Your task to perform on an android device: open app "Adobe Express: Graphic Design" (install if not already installed) and go to login screen Image 0: 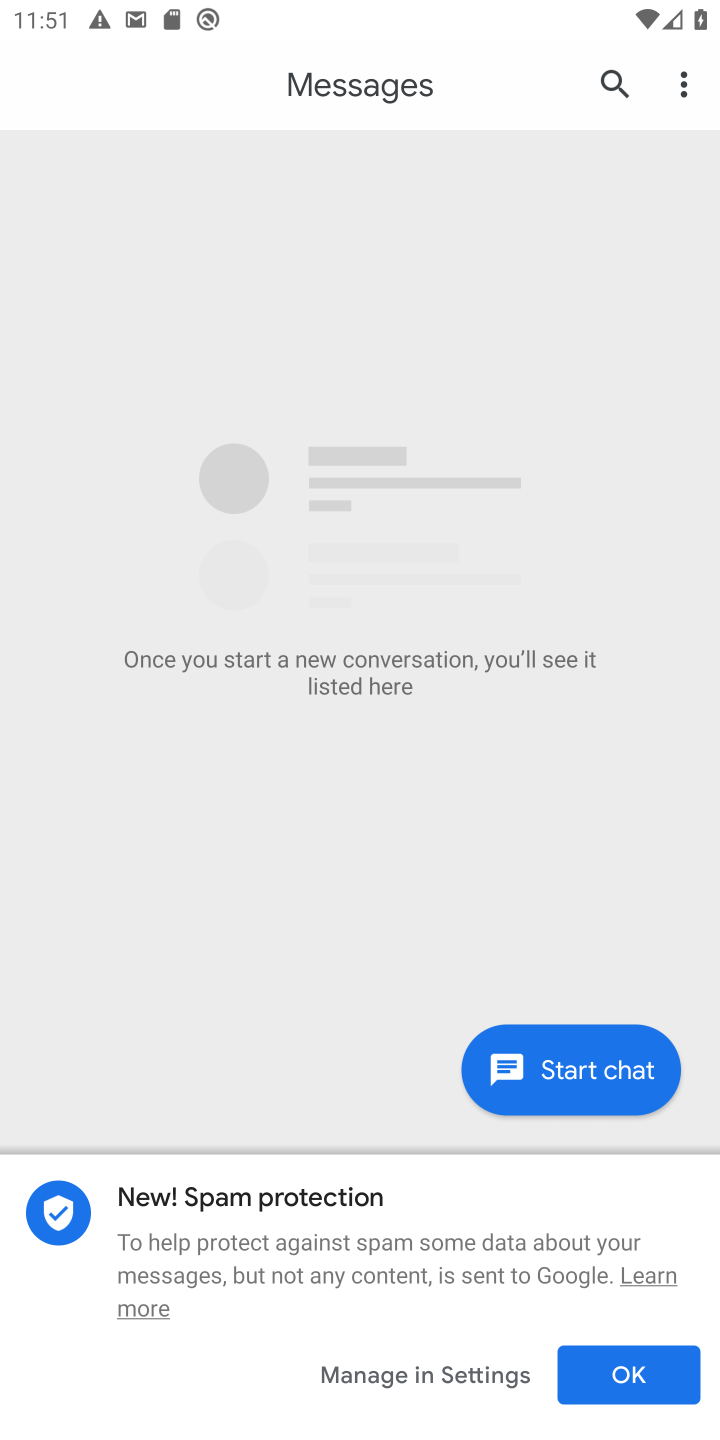
Step 0: press home button
Your task to perform on an android device: open app "Adobe Express: Graphic Design" (install if not already installed) and go to login screen Image 1: 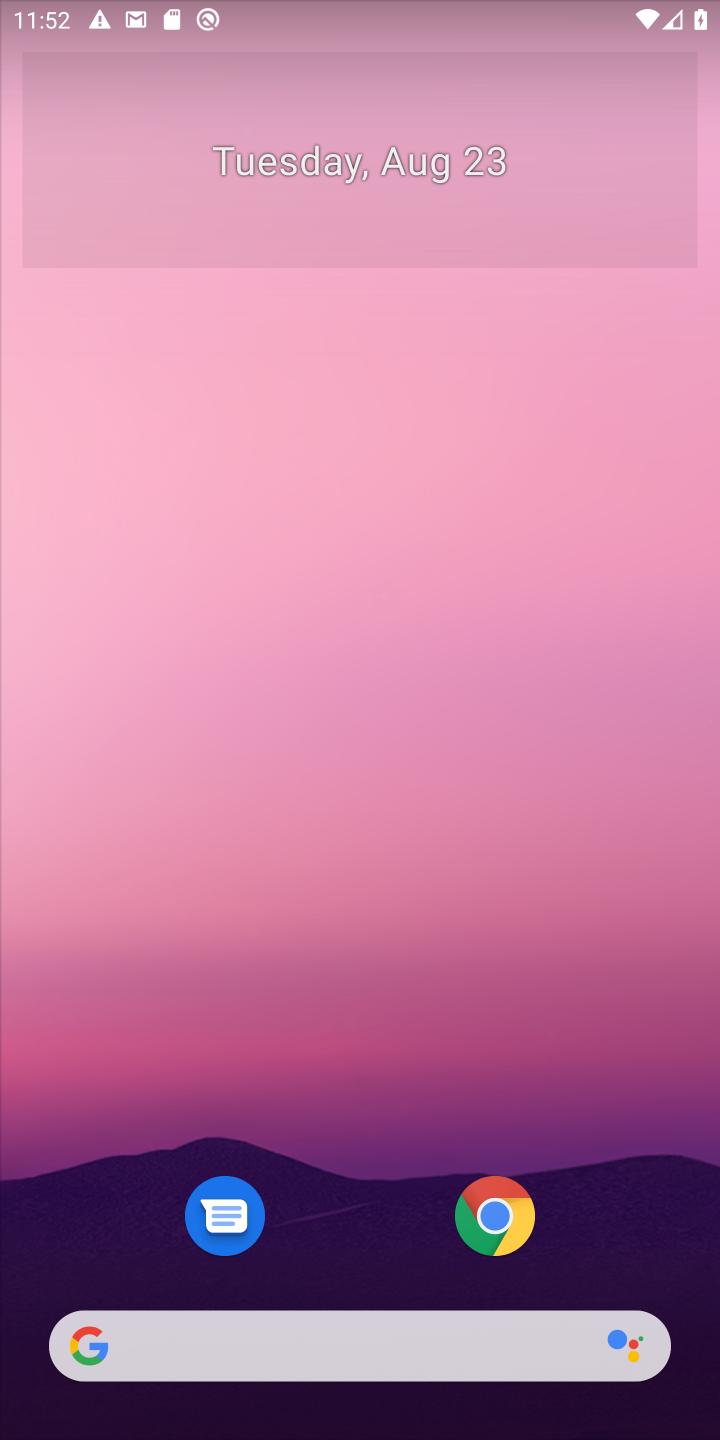
Step 1: drag from (254, 1334) to (397, 165)
Your task to perform on an android device: open app "Adobe Express: Graphic Design" (install if not already installed) and go to login screen Image 2: 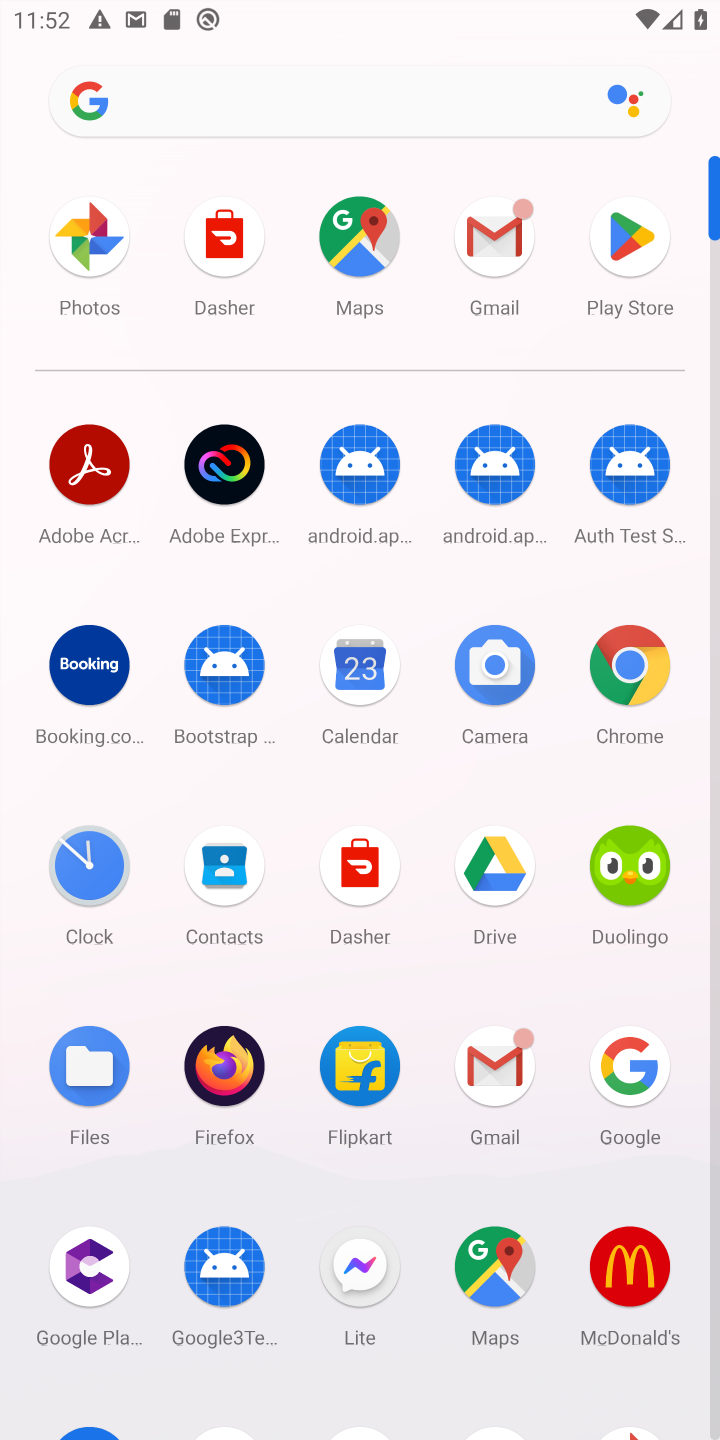
Step 2: click (628, 244)
Your task to perform on an android device: open app "Adobe Express: Graphic Design" (install if not already installed) and go to login screen Image 3: 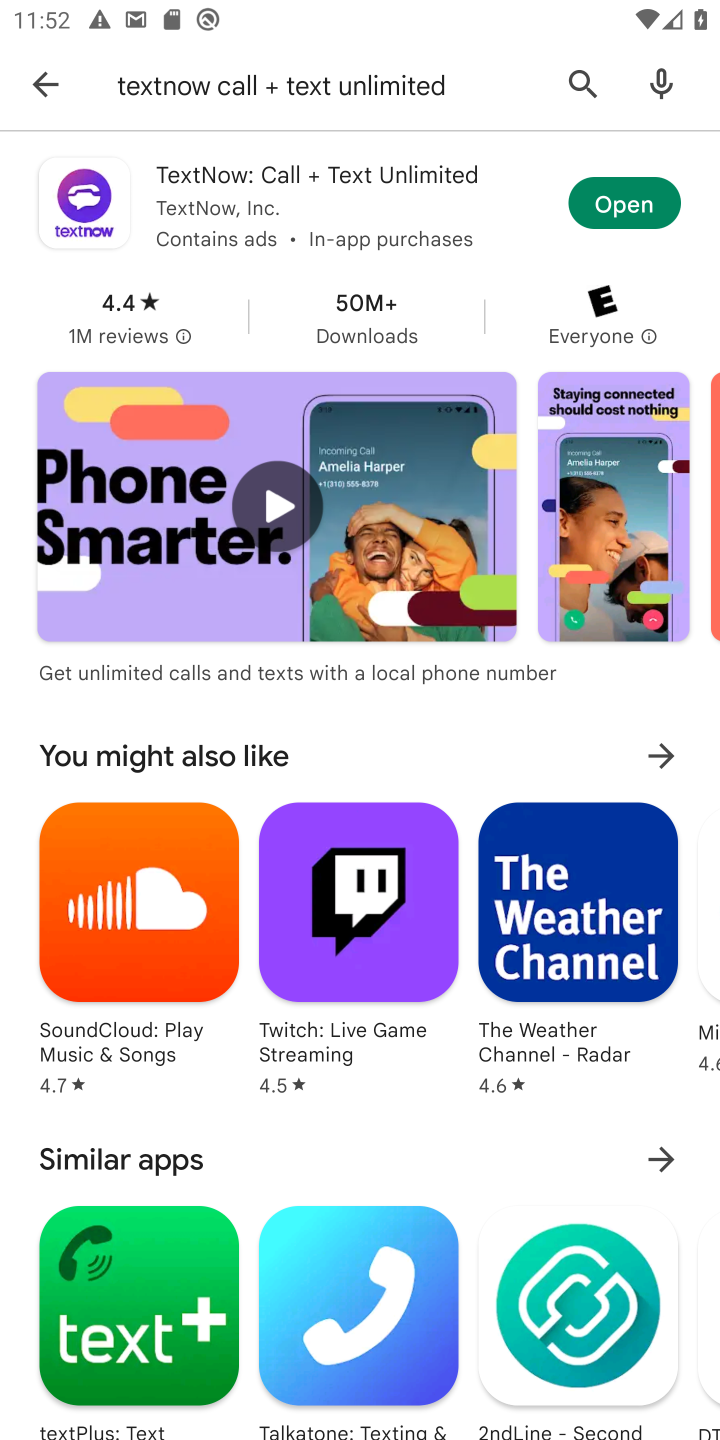
Step 3: press back button
Your task to perform on an android device: open app "Adobe Express: Graphic Design" (install if not already installed) and go to login screen Image 4: 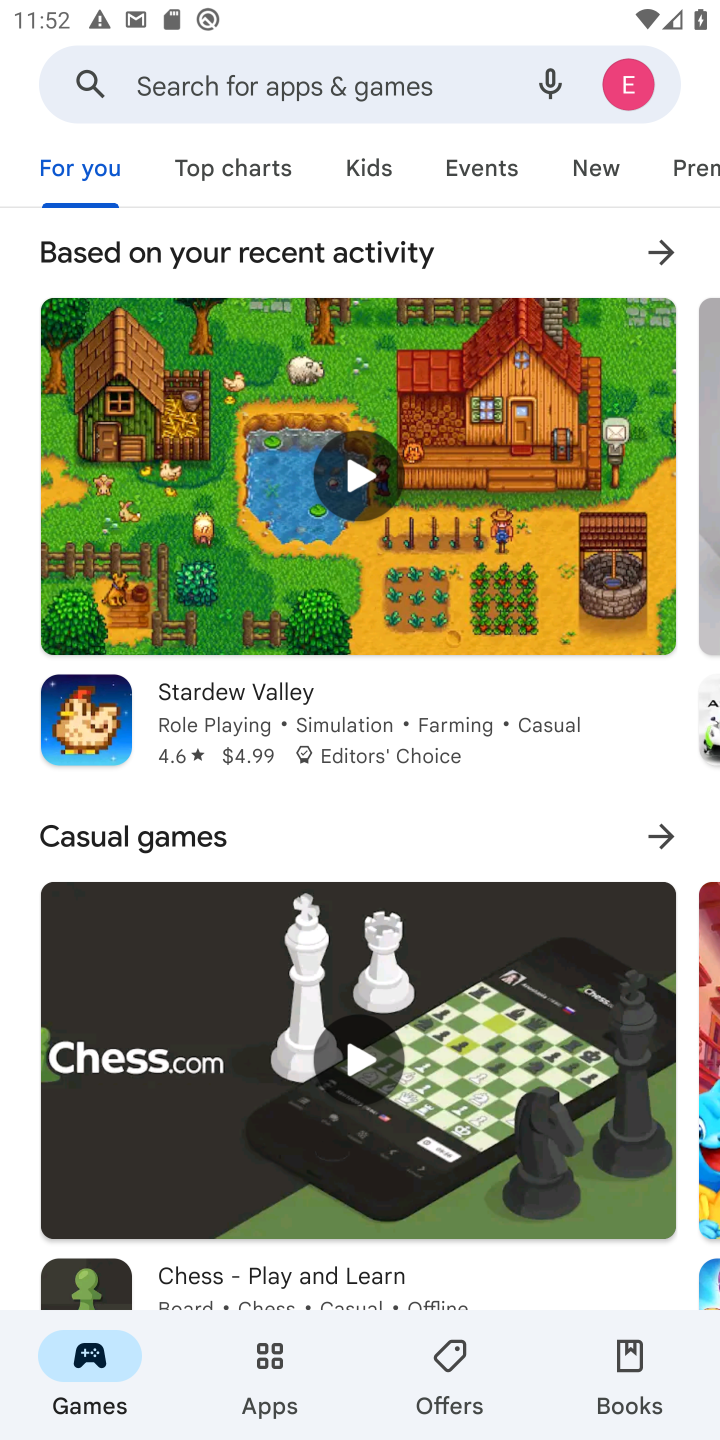
Step 4: click (388, 101)
Your task to perform on an android device: open app "Adobe Express: Graphic Design" (install if not already installed) and go to login screen Image 5: 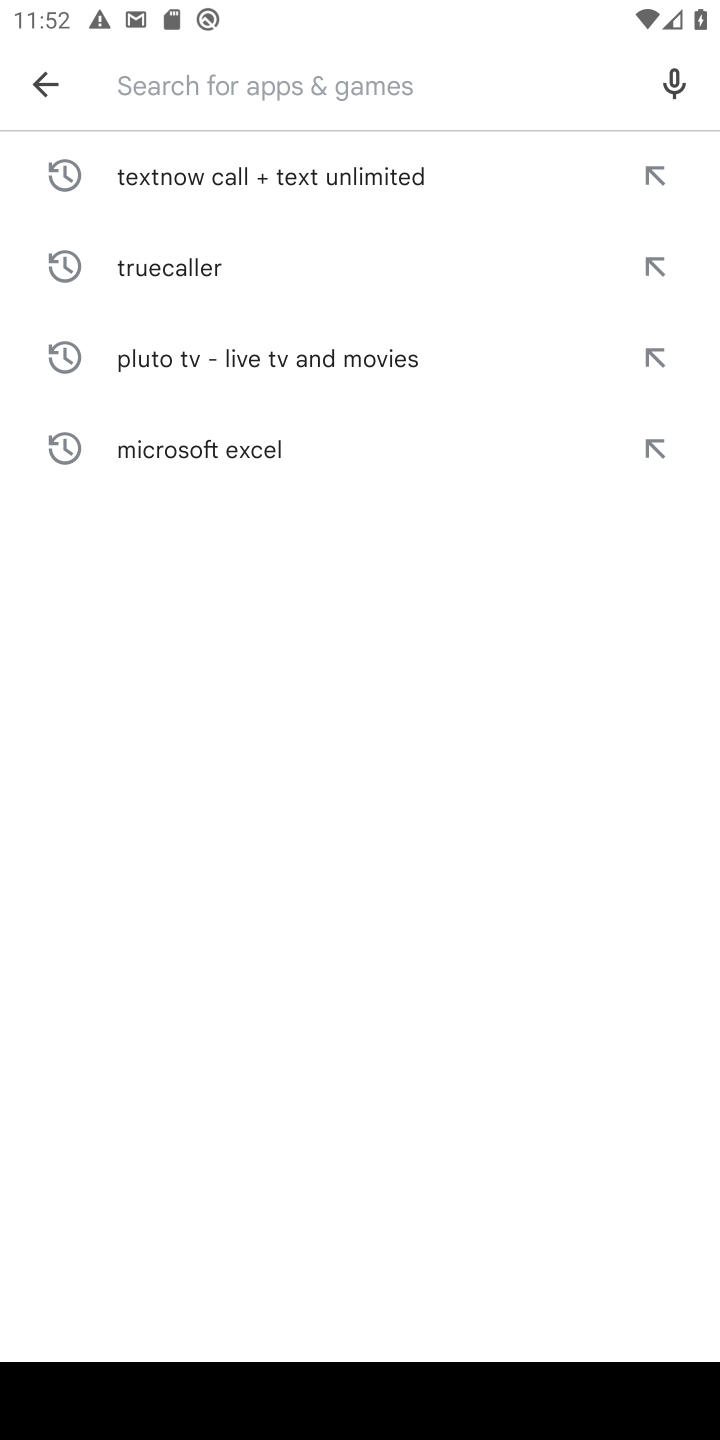
Step 5: type "Adobe Express: Graphic Design"
Your task to perform on an android device: open app "Adobe Express: Graphic Design" (install if not already installed) and go to login screen Image 6: 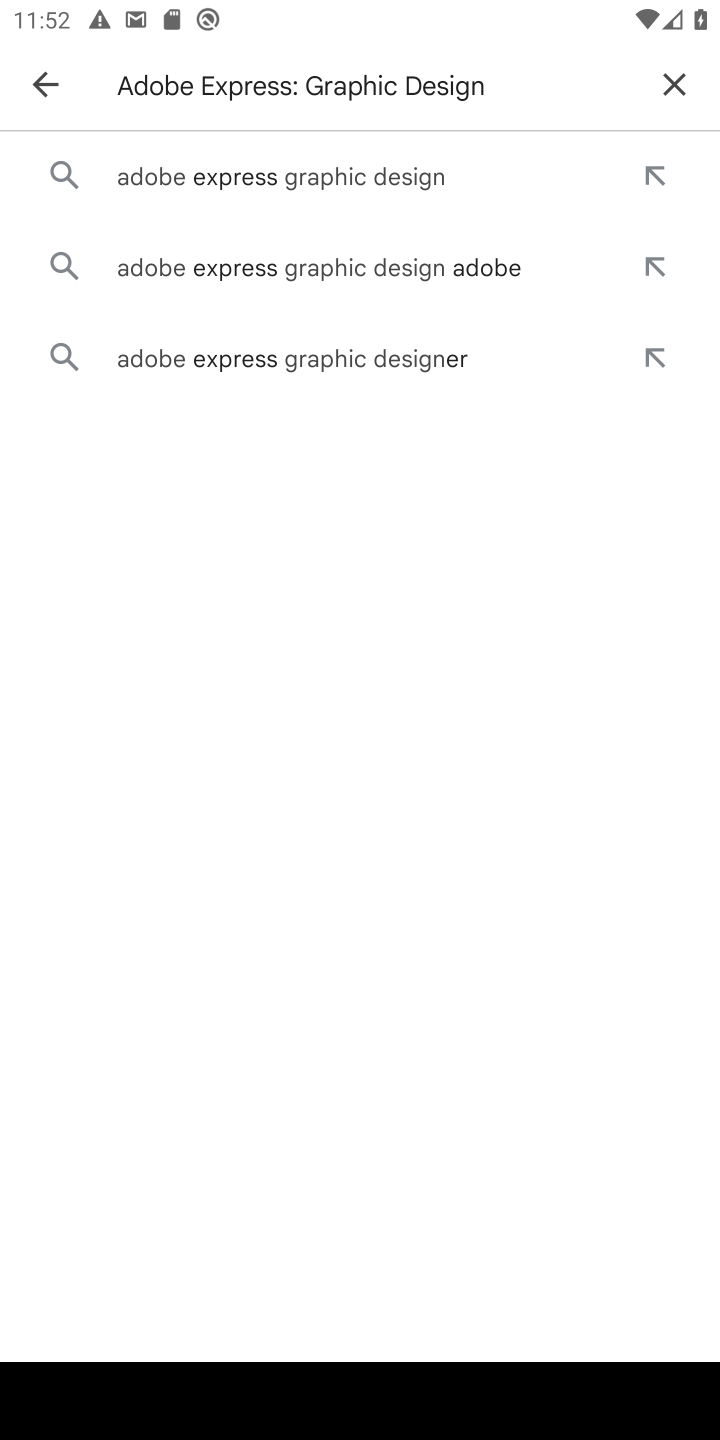
Step 6: click (270, 180)
Your task to perform on an android device: open app "Adobe Express: Graphic Design" (install if not already installed) and go to login screen Image 7: 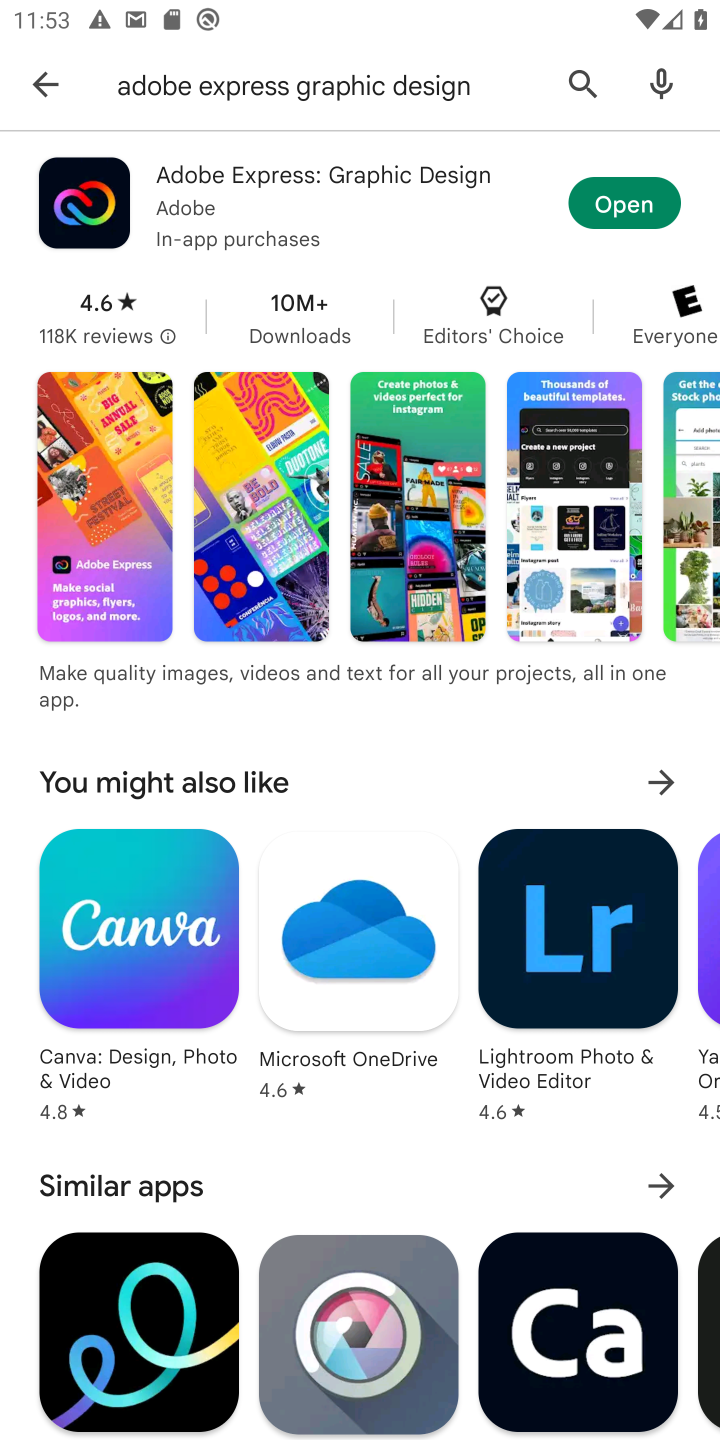
Step 7: click (608, 200)
Your task to perform on an android device: open app "Adobe Express: Graphic Design" (install if not already installed) and go to login screen Image 8: 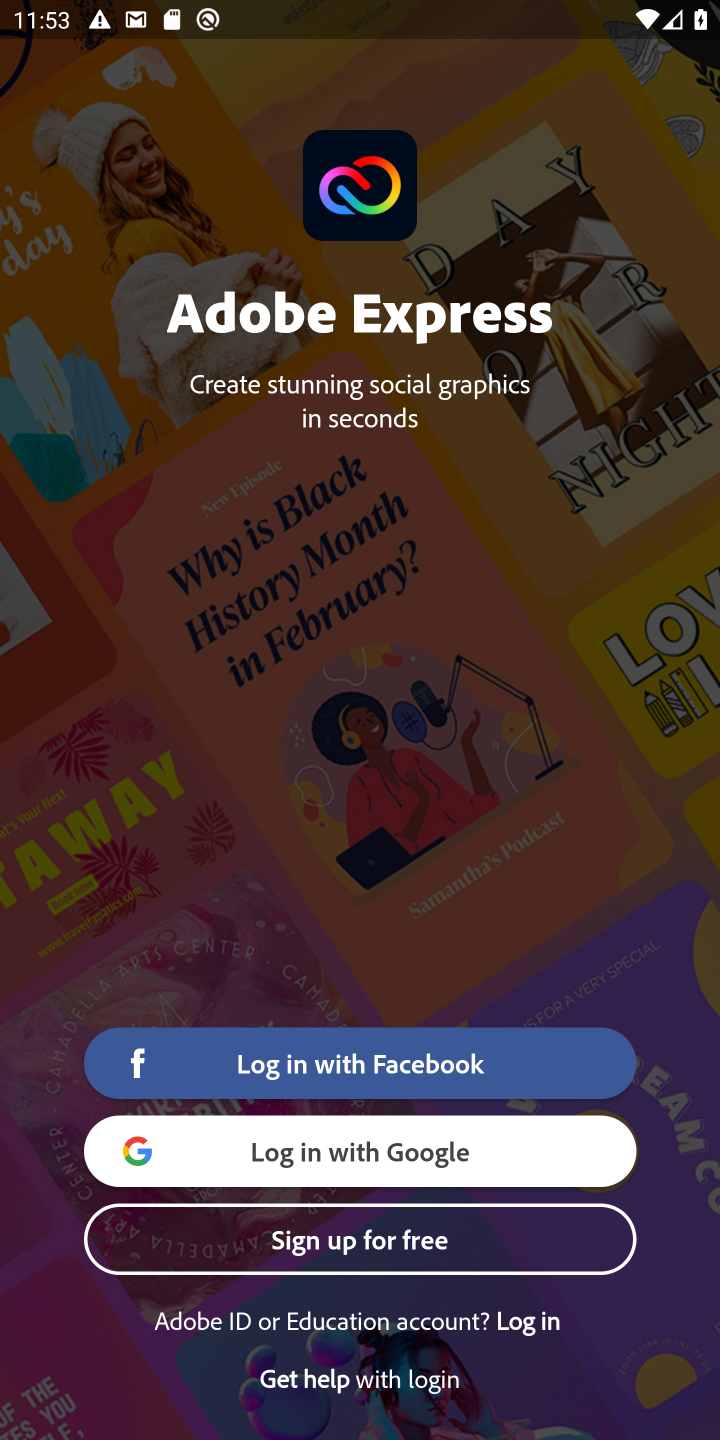
Step 8: click (528, 1330)
Your task to perform on an android device: open app "Adobe Express: Graphic Design" (install if not already installed) and go to login screen Image 9: 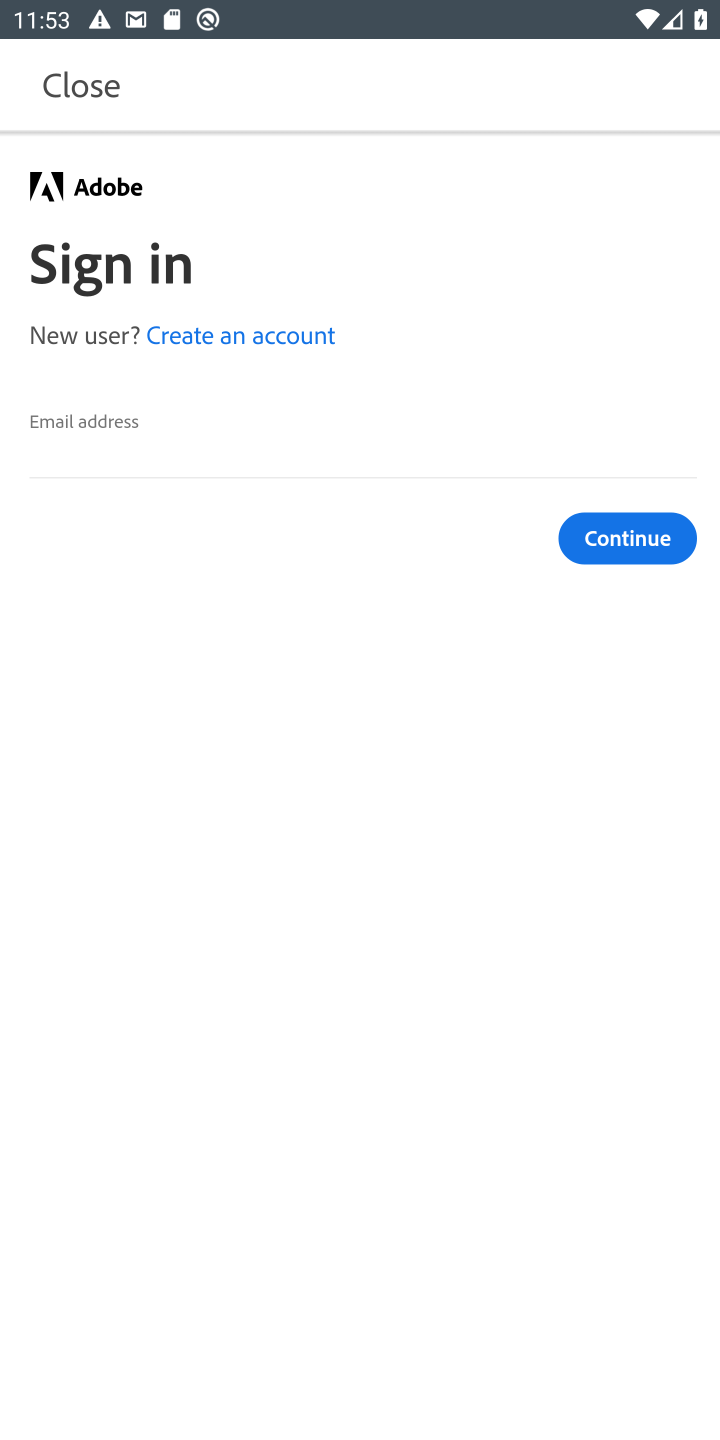
Step 9: task complete